Your task to perform on an android device: change notification settings in the gmail app Image 0: 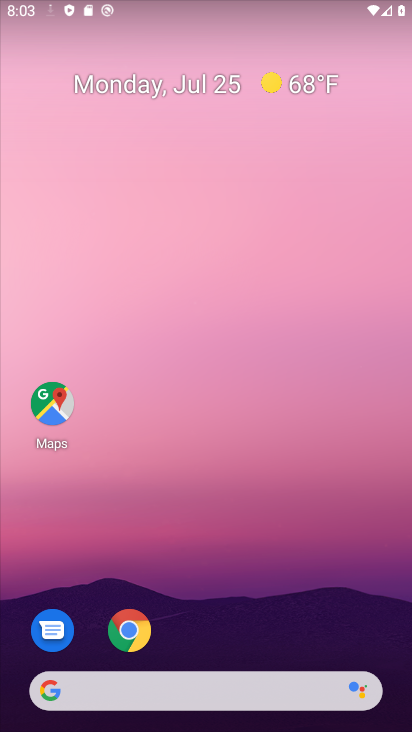
Step 0: drag from (173, 698) to (313, 146)
Your task to perform on an android device: change notification settings in the gmail app Image 1: 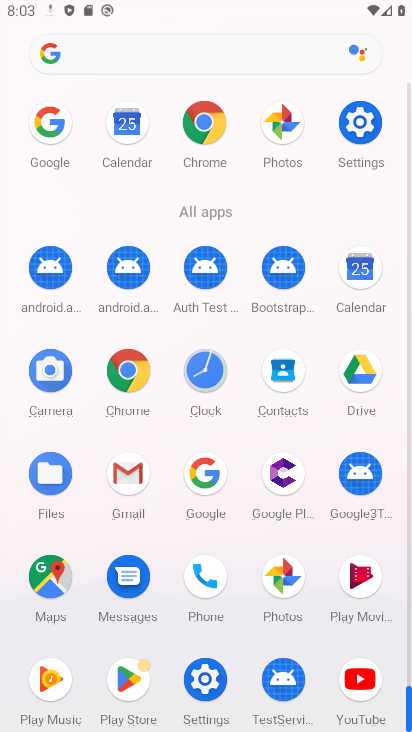
Step 1: click (125, 476)
Your task to perform on an android device: change notification settings in the gmail app Image 2: 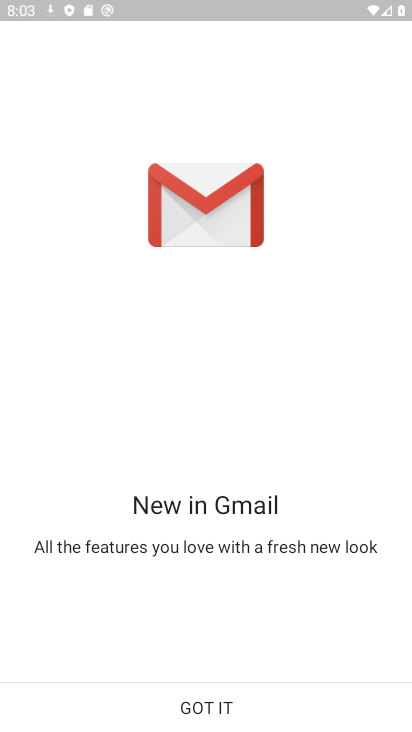
Step 2: click (262, 707)
Your task to perform on an android device: change notification settings in the gmail app Image 3: 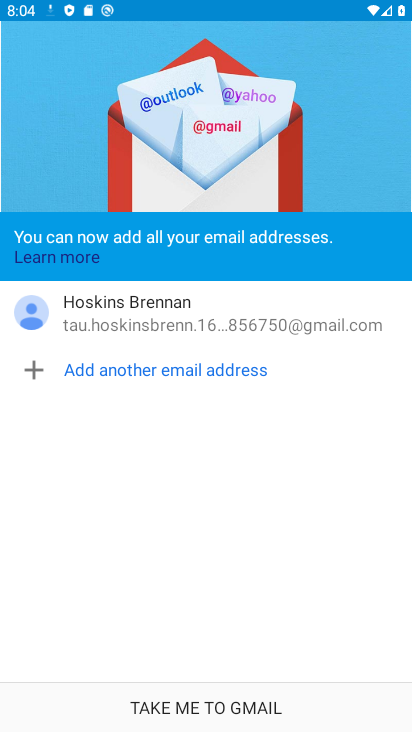
Step 3: click (211, 707)
Your task to perform on an android device: change notification settings in the gmail app Image 4: 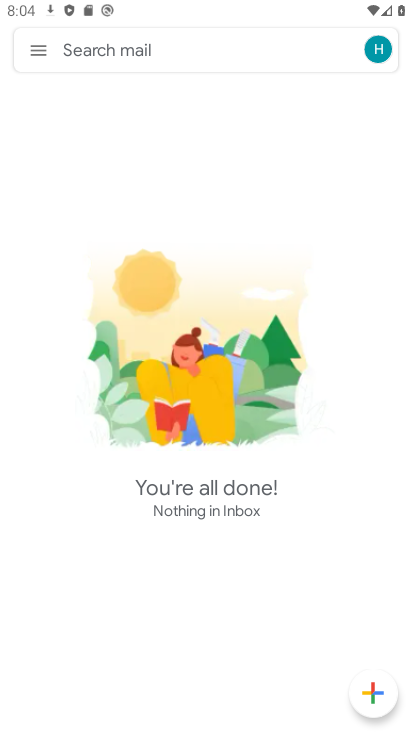
Step 4: click (39, 53)
Your task to perform on an android device: change notification settings in the gmail app Image 5: 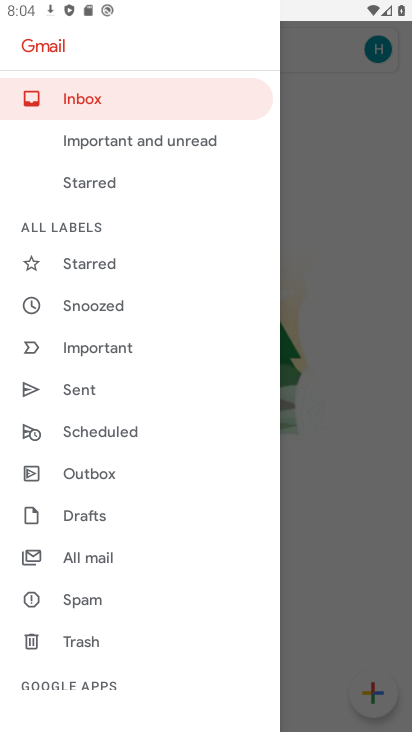
Step 5: drag from (138, 645) to (192, 178)
Your task to perform on an android device: change notification settings in the gmail app Image 6: 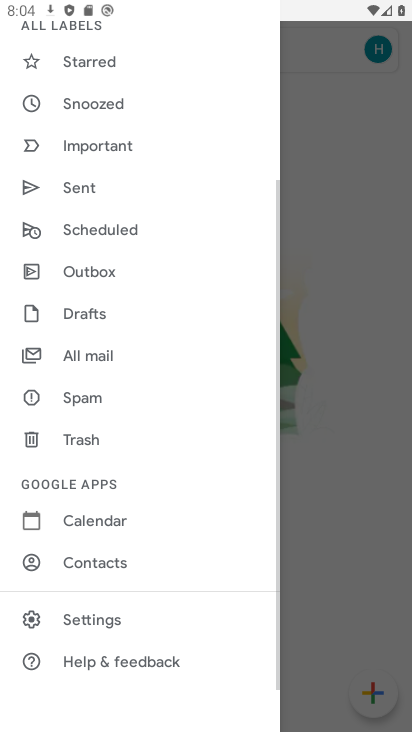
Step 6: click (95, 614)
Your task to perform on an android device: change notification settings in the gmail app Image 7: 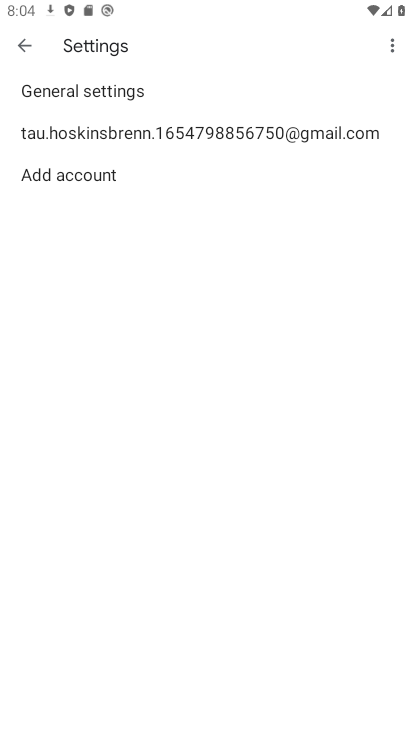
Step 7: click (250, 127)
Your task to perform on an android device: change notification settings in the gmail app Image 8: 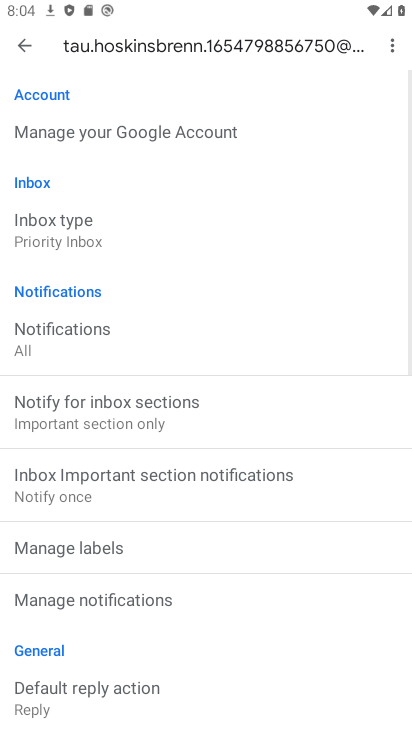
Step 8: click (77, 339)
Your task to perform on an android device: change notification settings in the gmail app Image 9: 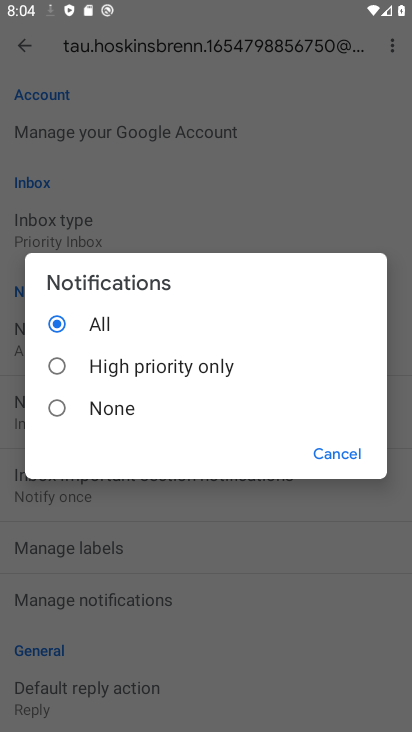
Step 9: click (55, 404)
Your task to perform on an android device: change notification settings in the gmail app Image 10: 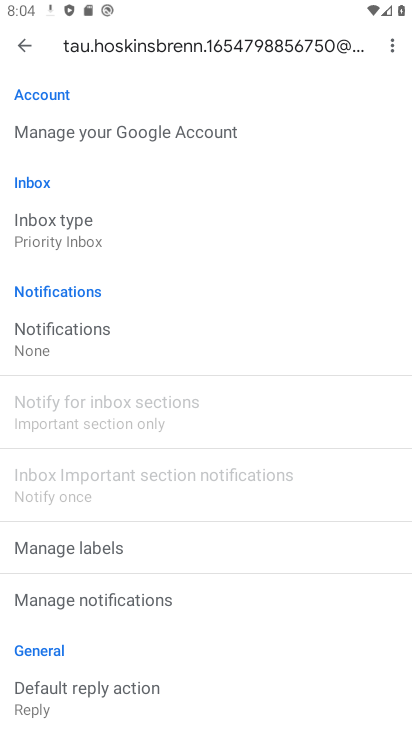
Step 10: task complete